Your task to perform on an android device: Go to Google Image 0: 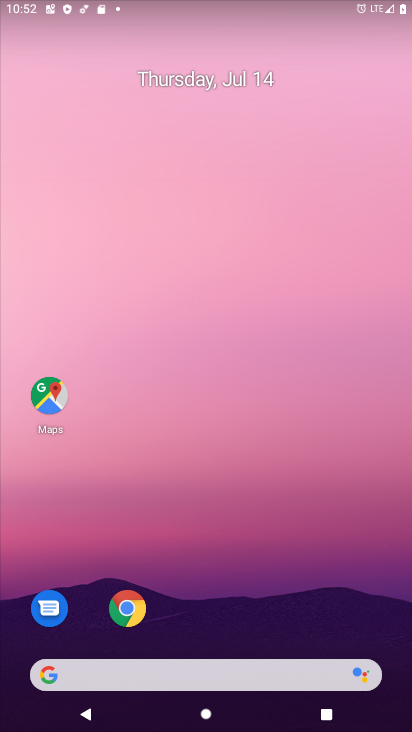
Step 0: drag from (237, 719) to (229, 198)
Your task to perform on an android device: Go to Google Image 1: 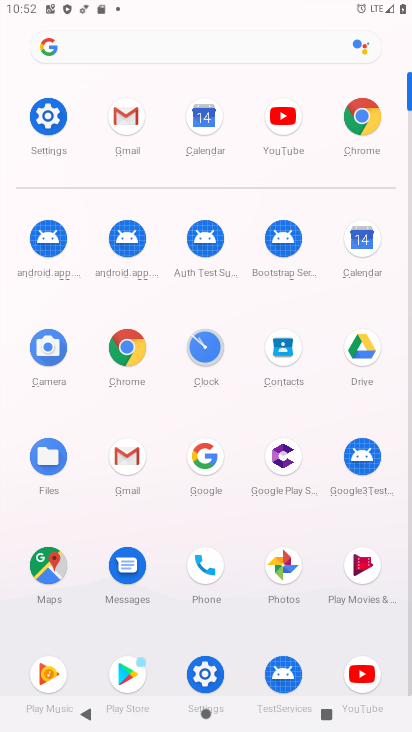
Step 1: click (195, 463)
Your task to perform on an android device: Go to Google Image 2: 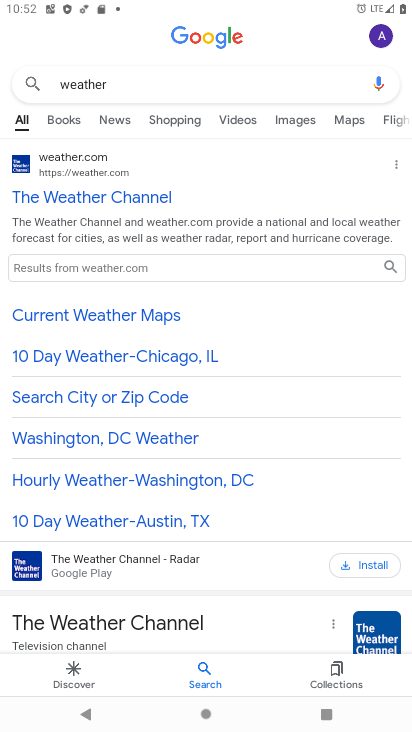
Step 2: task complete